Your task to perform on an android device: turn off notifications settings in the gmail app Image 0: 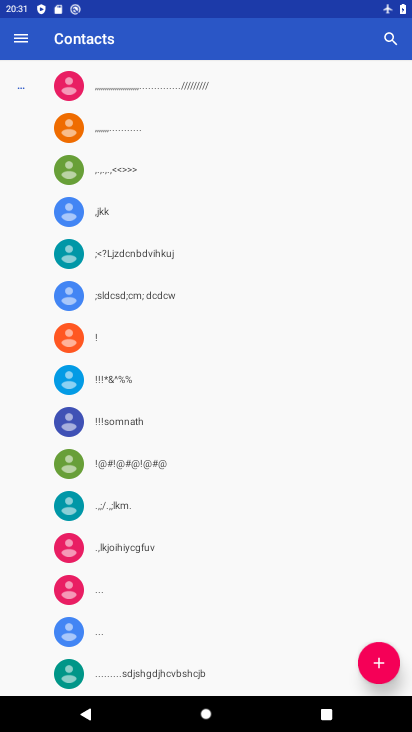
Step 0: press home button
Your task to perform on an android device: turn off notifications settings in the gmail app Image 1: 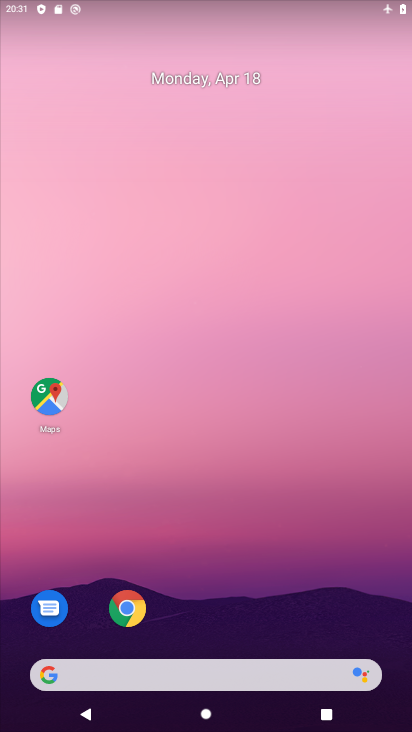
Step 1: drag from (216, 609) to (247, 195)
Your task to perform on an android device: turn off notifications settings in the gmail app Image 2: 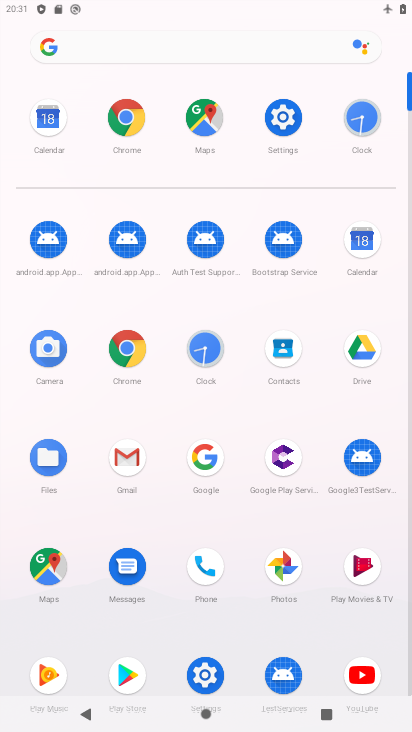
Step 2: click (125, 462)
Your task to perform on an android device: turn off notifications settings in the gmail app Image 3: 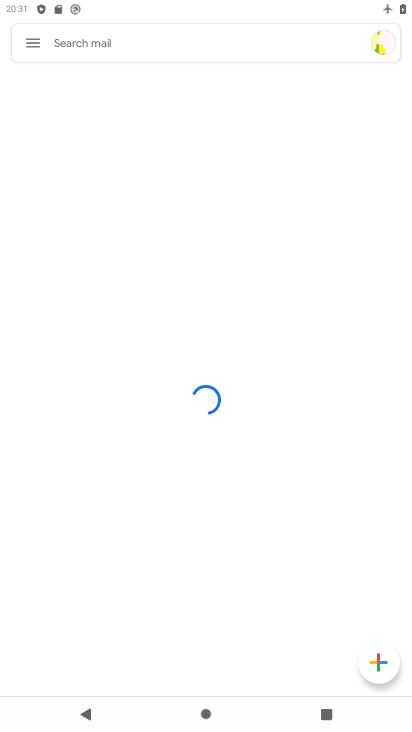
Step 3: click (31, 50)
Your task to perform on an android device: turn off notifications settings in the gmail app Image 4: 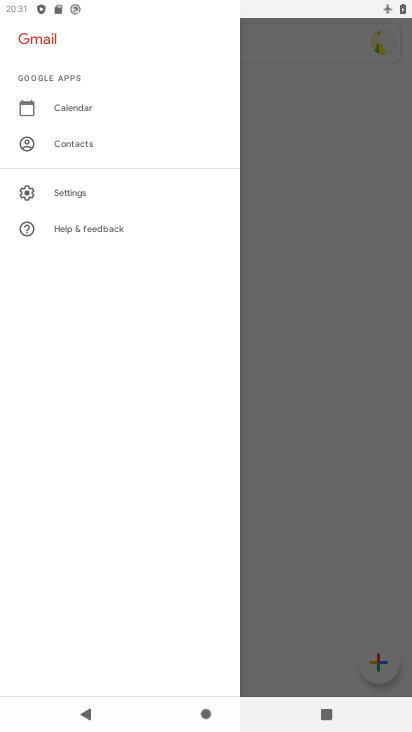
Step 4: click (83, 192)
Your task to perform on an android device: turn off notifications settings in the gmail app Image 5: 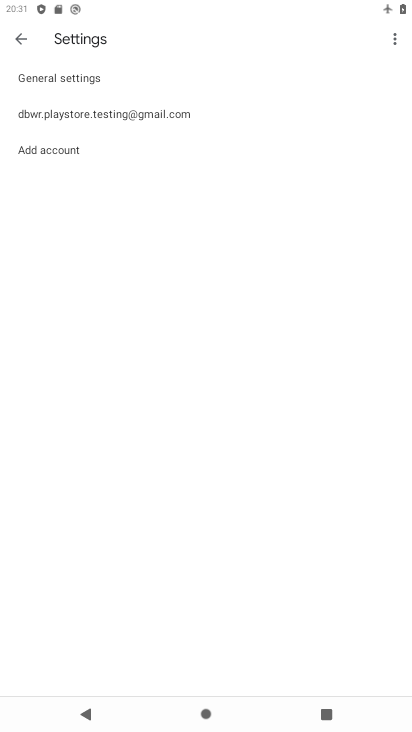
Step 5: click (85, 106)
Your task to perform on an android device: turn off notifications settings in the gmail app Image 6: 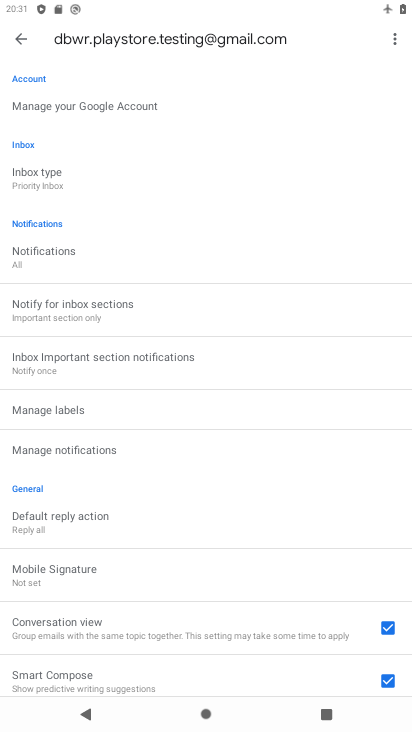
Step 6: click (65, 262)
Your task to perform on an android device: turn off notifications settings in the gmail app Image 7: 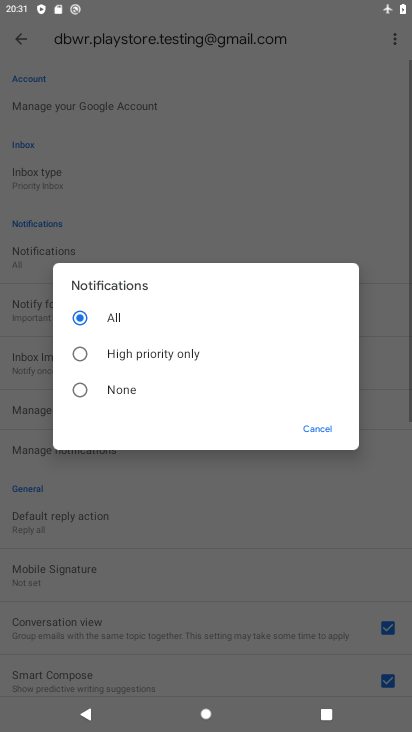
Step 7: click (81, 391)
Your task to perform on an android device: turn off notifications settings in the gmail app Image 8: 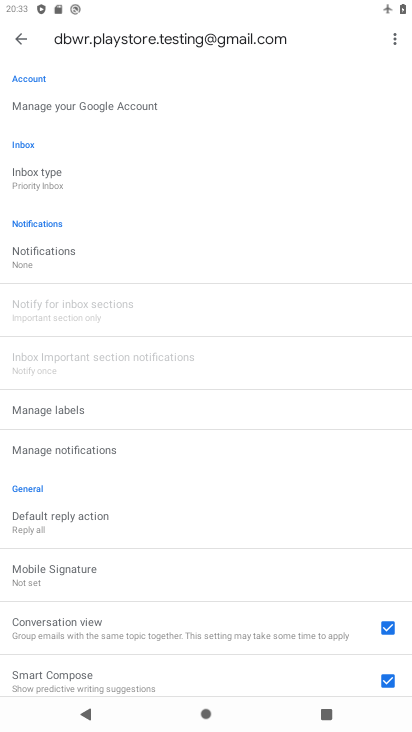
Step 8: task complete